Your task to perform on an android device: Open Android settings Image 0: 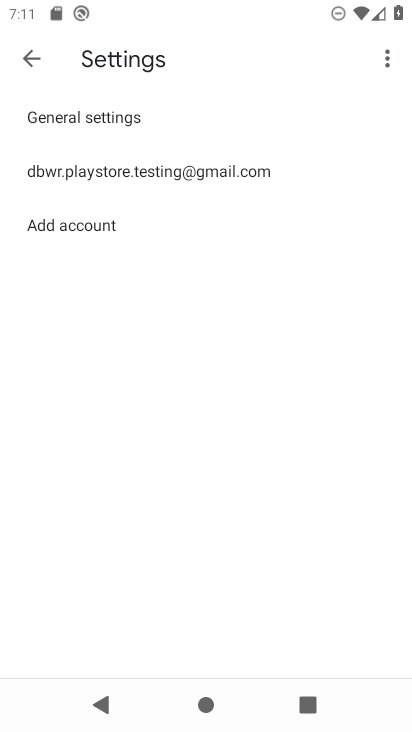
Step 0: press home button
Your task to perform on an android device: Open Android settings Image 1: 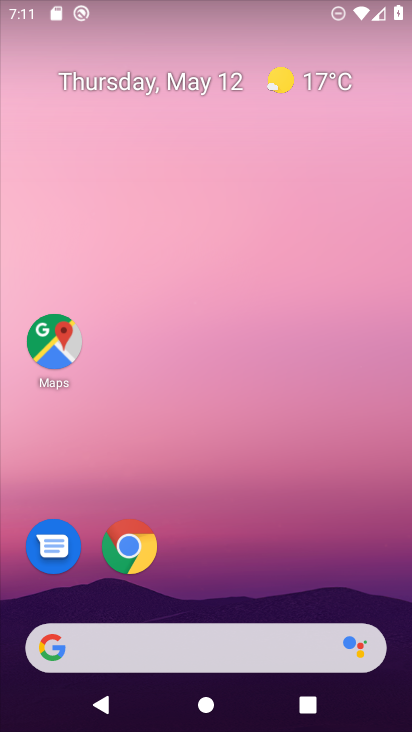
Step 1: drag from (244, 540) to (107, 20)
Your task to perform on an android device: Open Android settings Image 2: 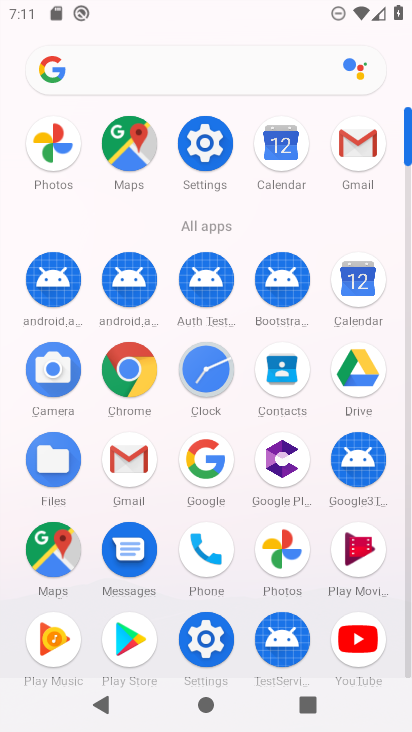
Step 2: click (207, 148)
Your task to perform on an android device: Open Android settings Image 3: 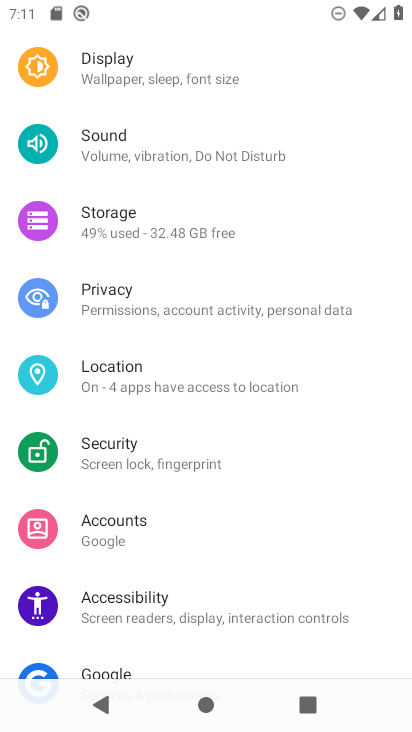
Step 3: task complete